Your task to perform on an android device: change alarm snooze length Image 0: 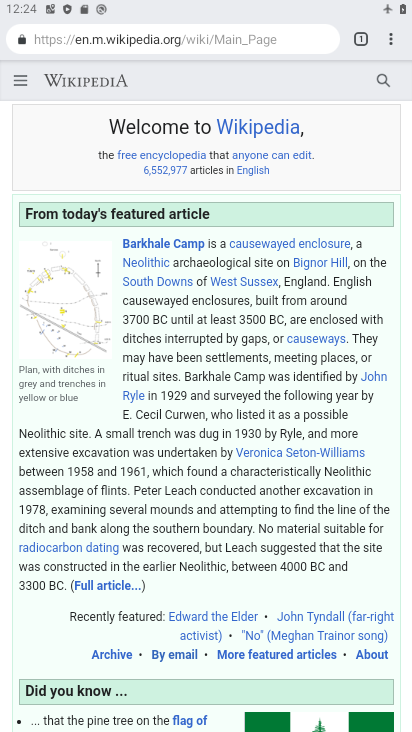
Step 0: press home button
Your task to perform on an android device: change alarm snooze length Image 1: 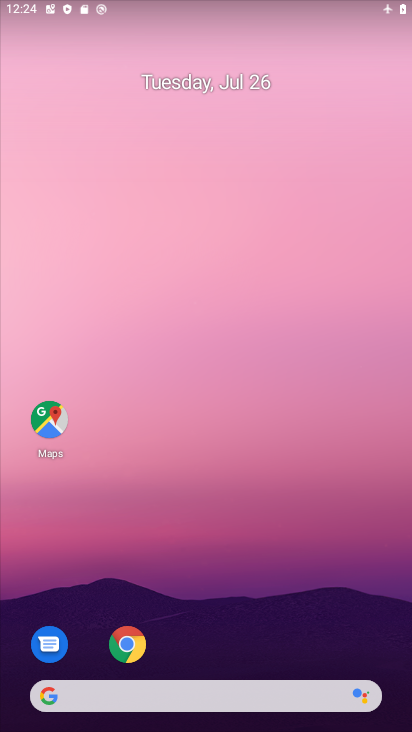
Step 1: drag from (183, 730) to (172, 101)
Your task to perform on an android device: change alarm snooze length Image 2: 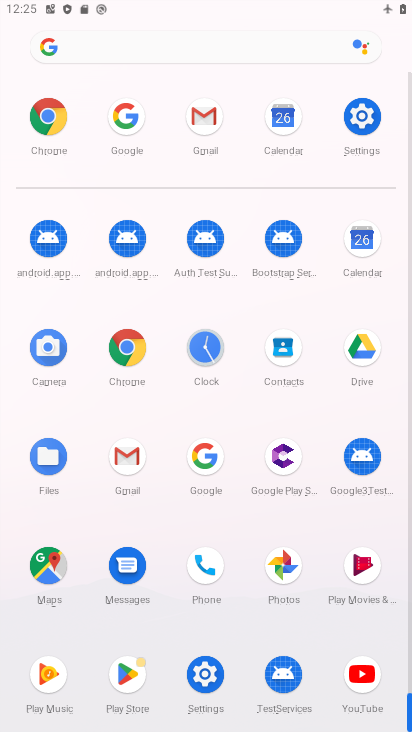
Step 2: click (213, 356)
Your task to perform on an android device: change alarm snooze length Image 3: 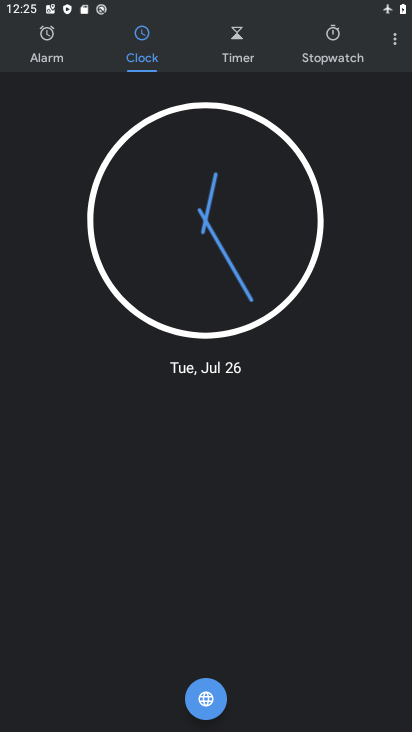
Step 3: click (396, 48)
Your task to perform on an android device: change alarm snooze length Image 4: 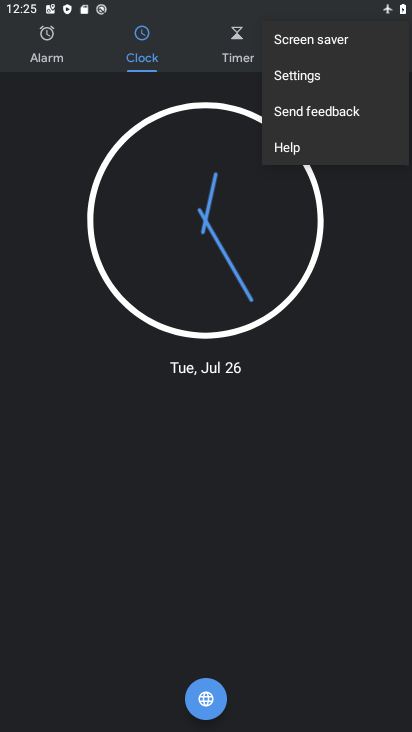
Step 4: click (302, 75)
Your task to perform on an android device: change alarm snooze length Image 5: 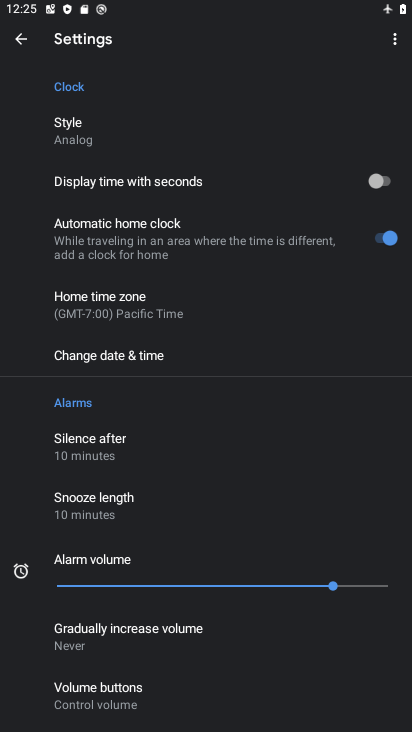
Step 5: click (121, 507)
Your task to perform on an android device: change alarm snooze length Image 6: 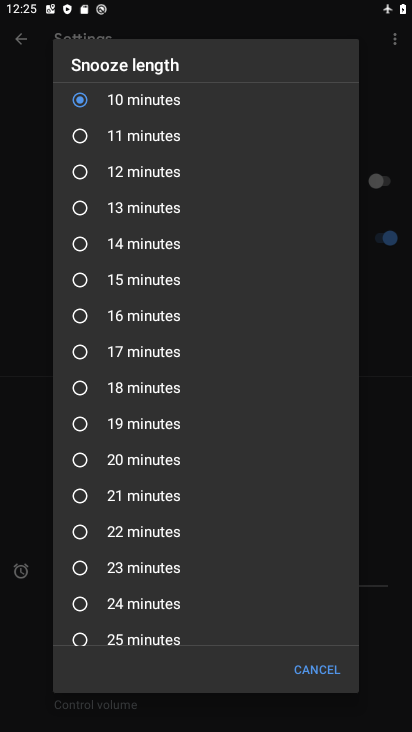
Step 6: click (86, 174)
Your task to perform on an android device: change alarm snooze length Image 7: 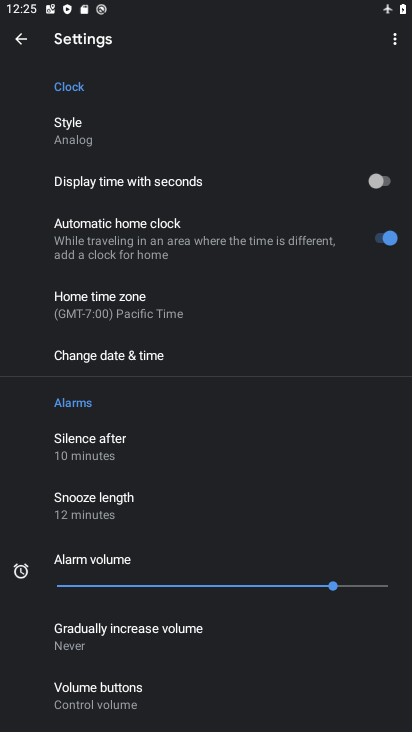
Step 7: task complete